Your task to perform on an android device: turn pop-ups on in chrome Image 0: 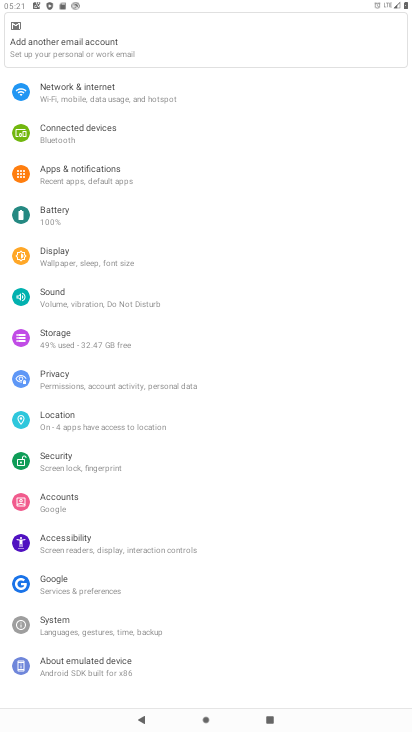
Step 0: press home button
Your task to perform on an android device: turn pop-ups on in chrome Image 1: 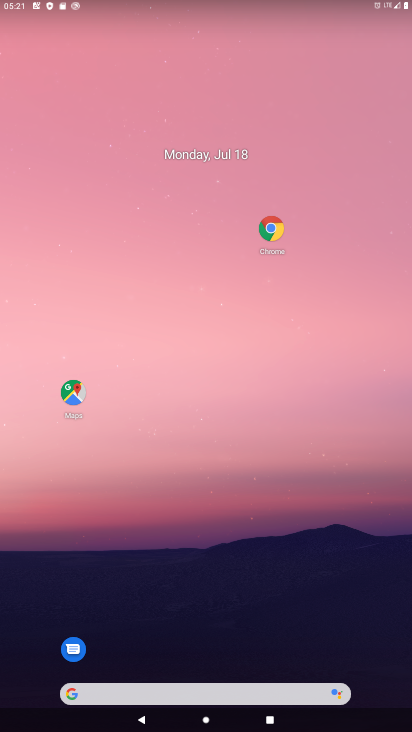
Step 1: click (275, 223)
Your task to perform on an android device: turn pop-ups on in chrome Image 2: 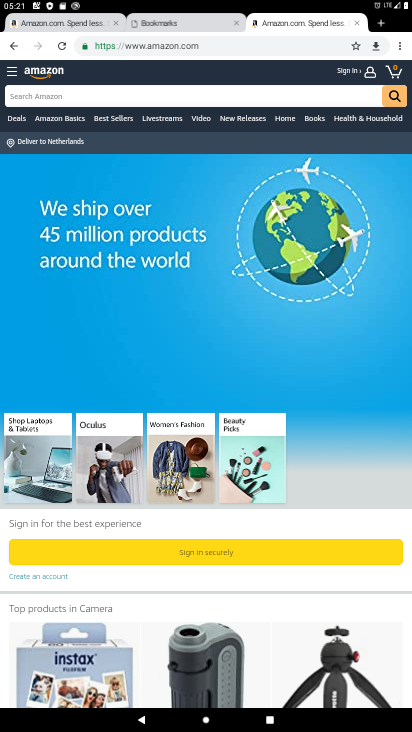
Step 2: click (404, 41)
Your task to perform on an android device: turn pop-ups on in chrome Image 3: 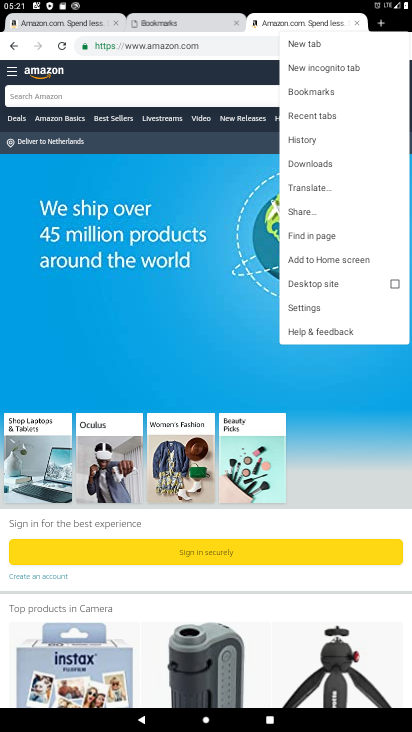
Step 3: click (302, 307)
Your task to perform on an android device: turn pop-ups on in chrome Image 4: 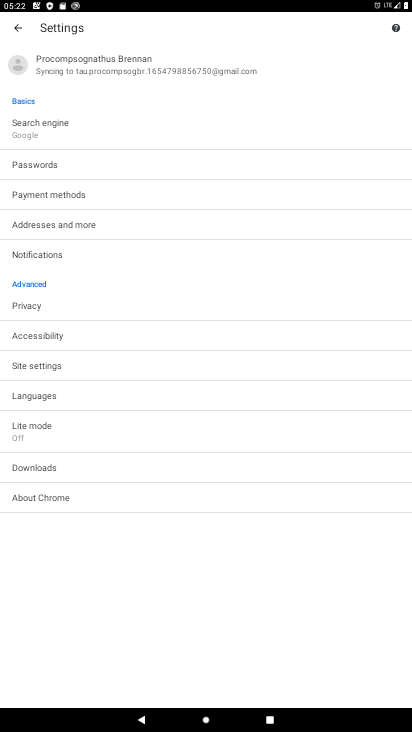
Step 4: click (78, 359)
Your task to perform on an android device: turn pop-ups on in chrome Image 5: 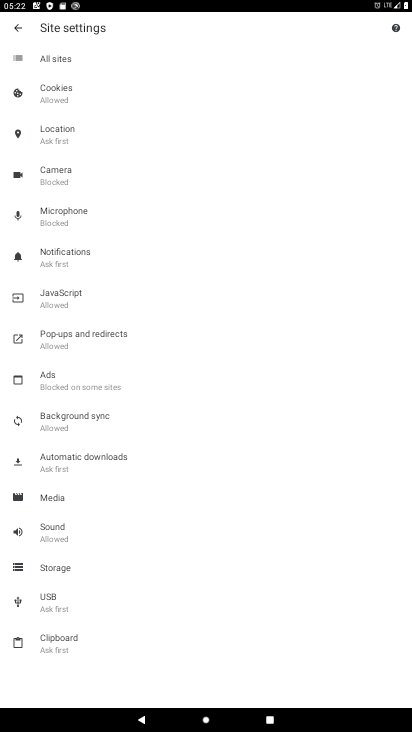
Step 5: click (83, 340)
Your task to perform on an android device: turn pop-ups on in chrome Image 6: 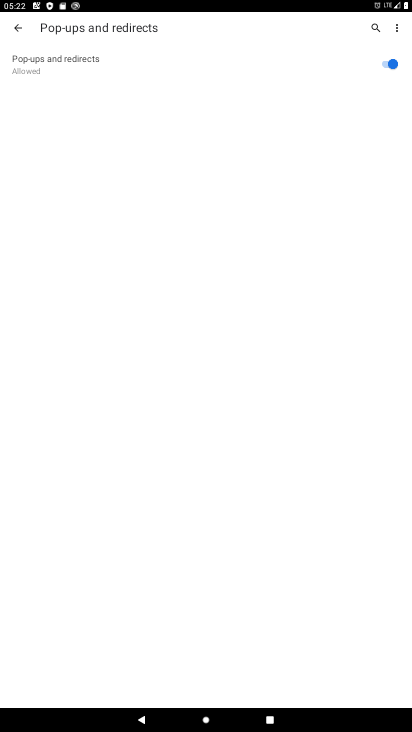
Step 6: task complete